Your task to perform on an android device: remove spam from my inbox in the gmail app Image 0: 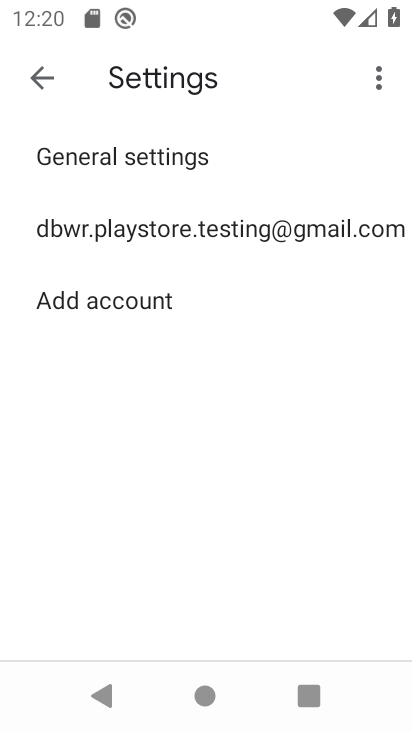
Step 0: click (59, 77)
Your task to perform on an android device: remove spam from my inbox in the gmail app Image 1: 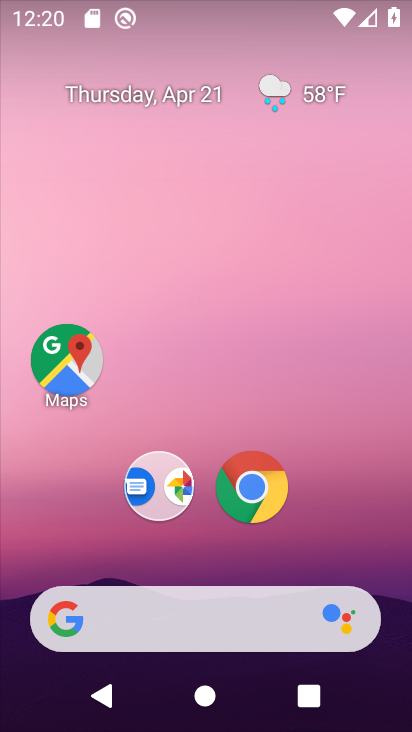
Step 1: drag from (285, 668) to (257, 137)
Your task to perform on an android device: remove spam from my inbox in the gmail app Image 2: 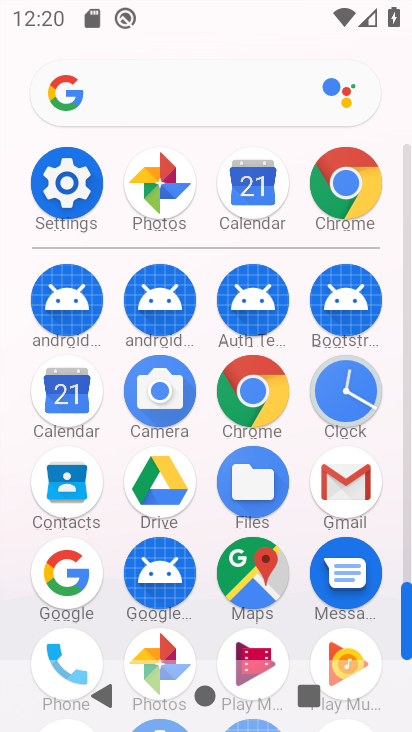
Step 2: click (343, 490)
Your task to perform on an android device: remove spam from my inbox in the gmail app Image 3: 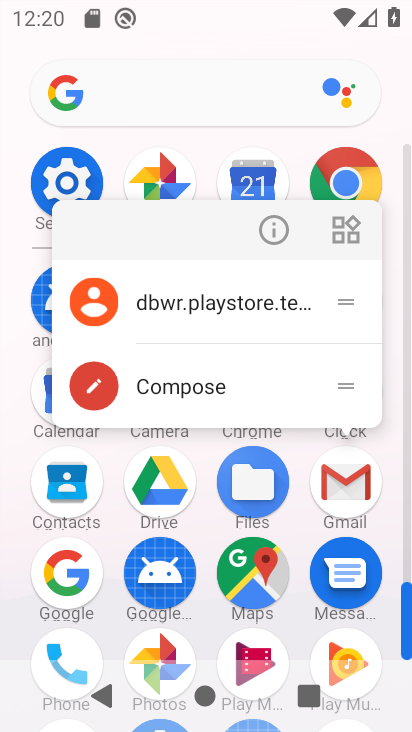
Step 3: click (347, 477)
Your task to perform on an android device: remove spam from my inbox in the gmail app Image 4: 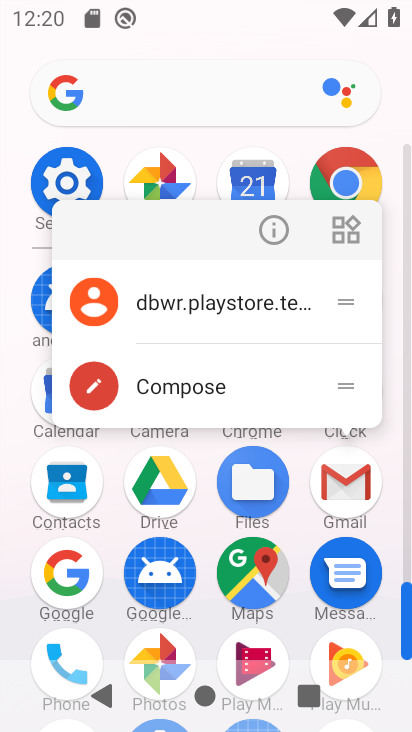
Step 4: click (347, 477)
Your task to perform on an android device: remove spam from my inbox in the gmail app Image 5: 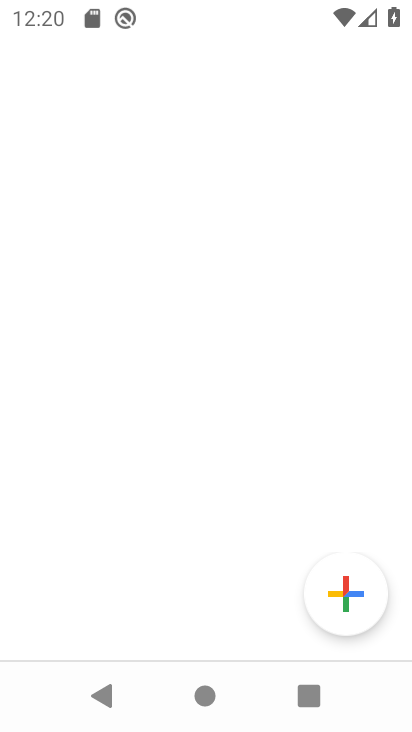
Step 5: click (136, 356)
Your task to perform on an android device: remove spam from my inbox in the gmail app Image 6: 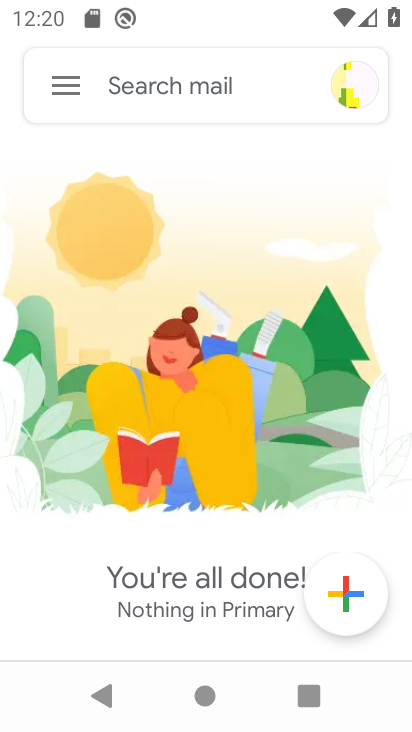
Step 6: click (65, 99)
Your task to perform on an android device: remove spam from my inbox in the gmail app Image 7: 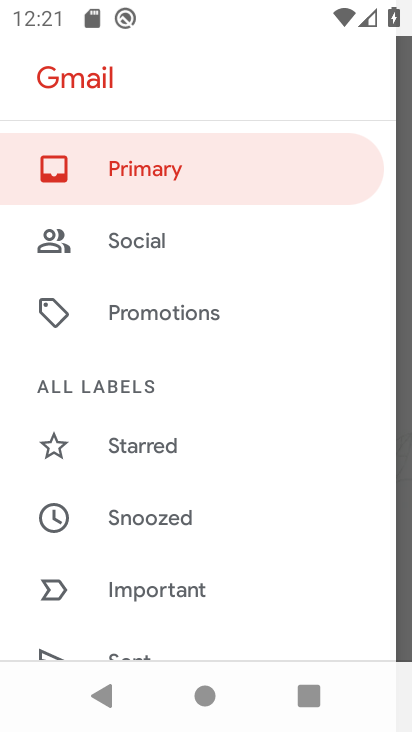
Step 7: drag from (102, 538) to (161, 290)
Your task to perform on an android device: remove spam from my inbox in the gmail app Image 8: 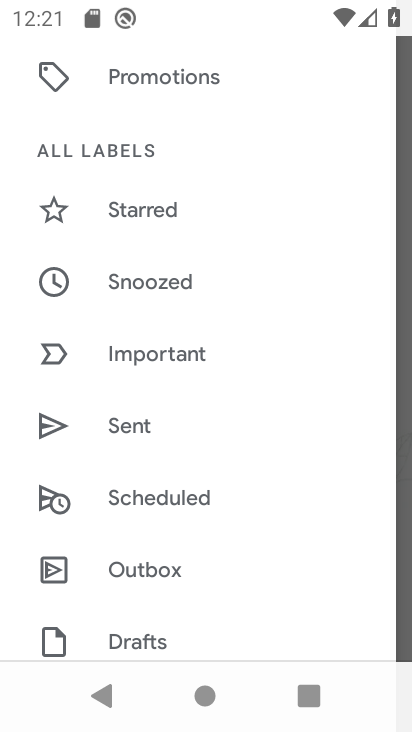
Step 8: drag from (176, 487) to (221, 315)
Your task to perform on an android device: remove spam from my inbox in the gmail app Image 9: 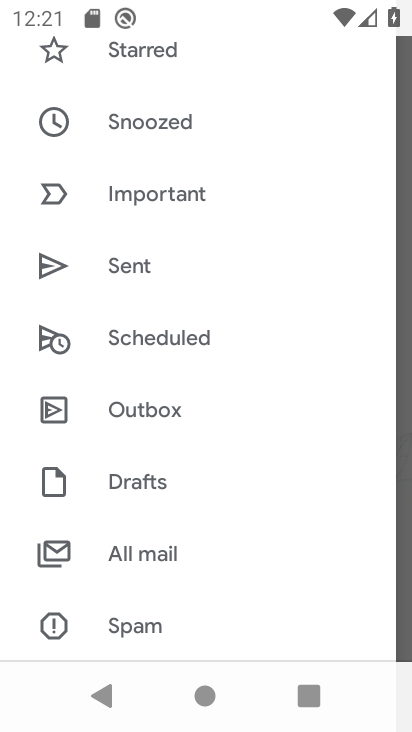
Step 9: drag from (204, 496) to (245, 375)
Your task to perform on an android device: remove spam from my inbox in the gmail app Image 10: 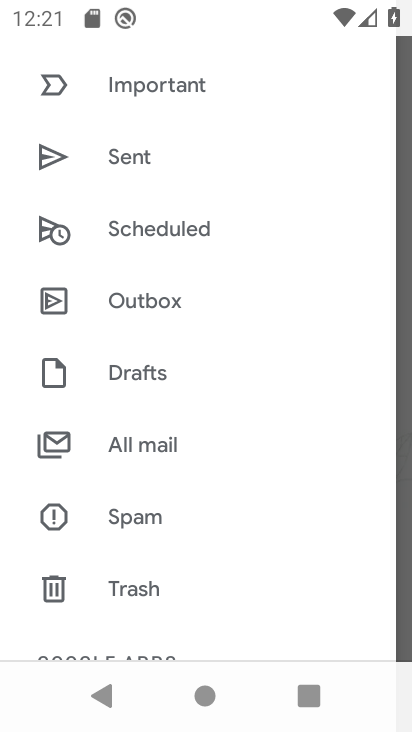
Step 10: click (149, 516)
Your task to perform on an android device: remove spam from my inbox in the gmail app Image 11: 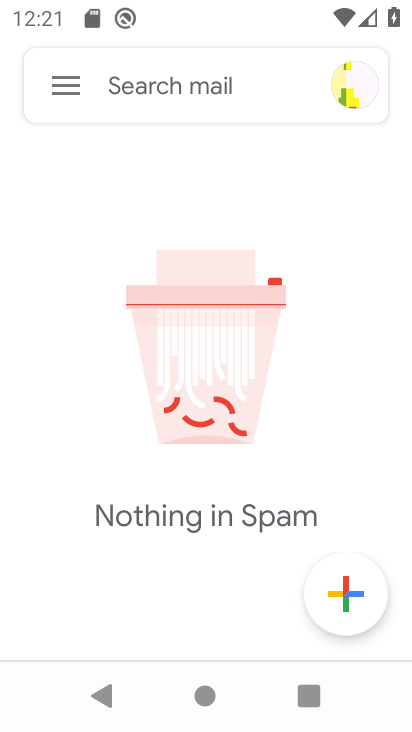
Step 11: task complete